Your task to perform on an android device: search for starred emails in the gmail app Image 0: 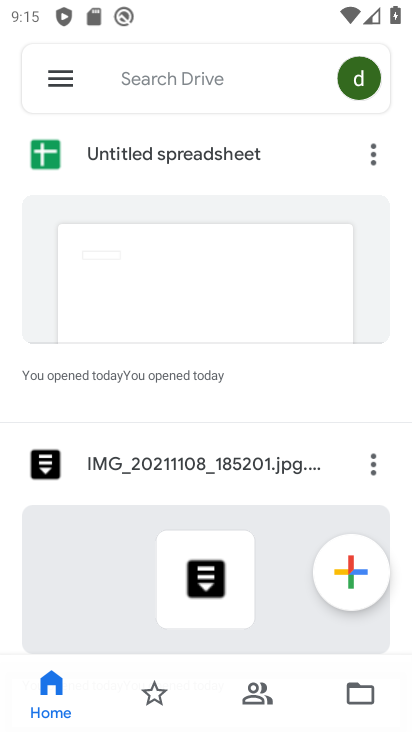
Step 0: press home button
Your task to perform on an android device: search for starred emails in the gmail app Image 1: 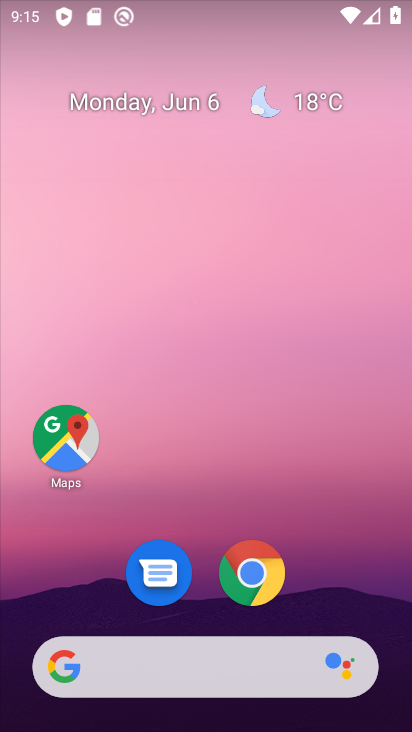
Step 1: drag from (384, 602) to (297, 134)
Your task to perform on an android device: search for starred emails in the gmail app Image 2: 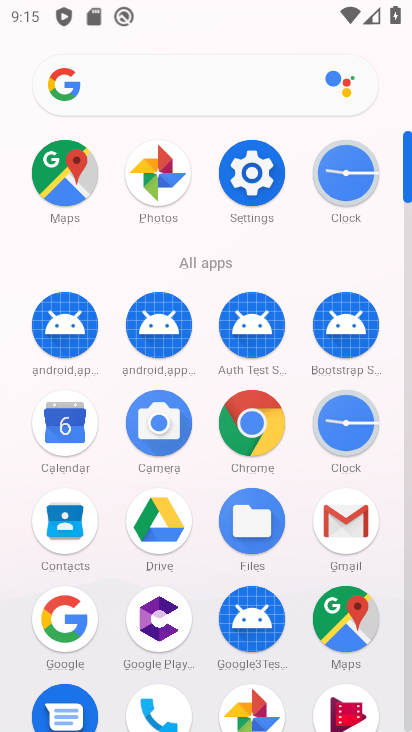
Step 2: click (349, 530)
Your task to perform on an android device: search for starred emails in the gmail app Image 3: 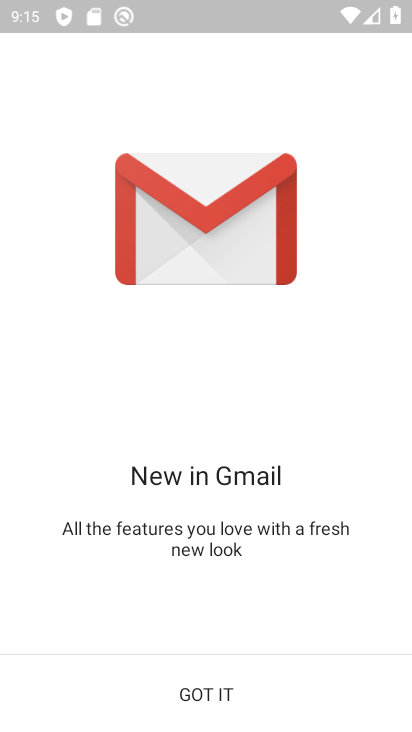
Step 3: click (229, 679)
Your task to perform on an android device: search for starred emails in the gmail app Image 4: 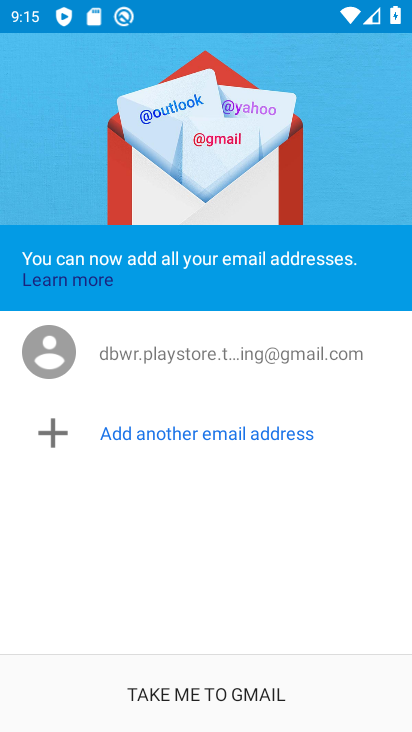
Step 4: click (229, 679)
Your task to perform on an android device: search for starred emails in the gmail app Image 5: 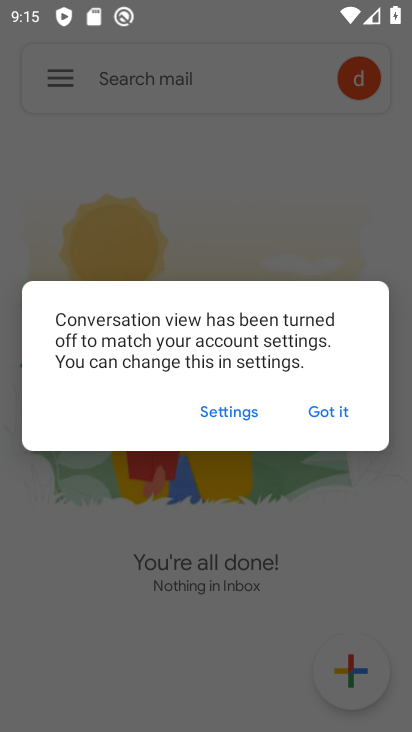
Step 5: click (337, 421)
Your task to perform on an android device: search for starred emails in the gmail app Image 6: 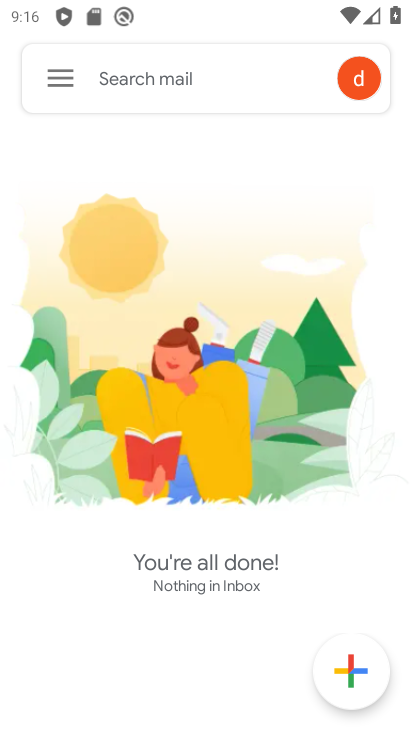
Step 6: click (57, 81)
Your task to perform on an android device: search for starred emails in the gmail app Image 7: 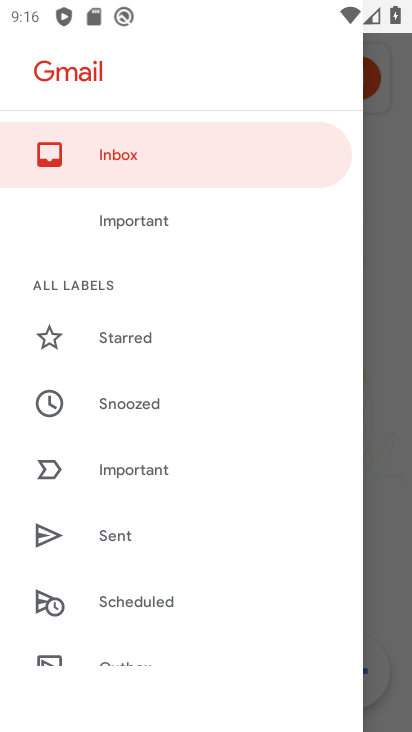
Step 7: click (106, 328)
Your task to perform on an android device: search for starred emails in the gmail app Image 8: 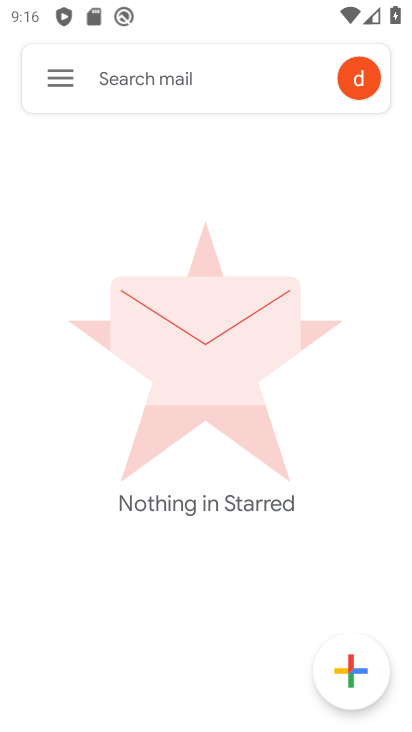
Step 8: task complete